Your task to perform on an android device: Open ESPN.com Image 0: 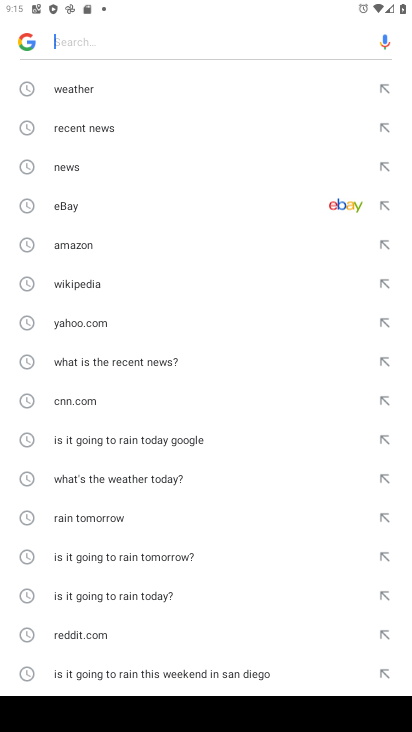
Step 0: type "espn.com"
Your task to perform on an android device: Open ESPN.com Image 1: 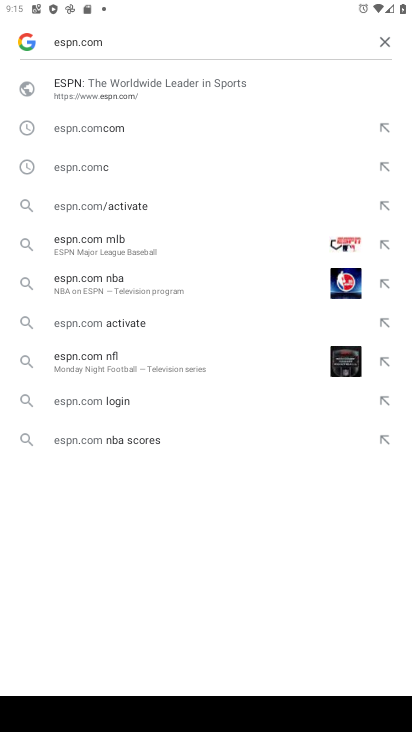
Step 1: click (206, 91)
Your task to perform on an android device: Open ESPN.com Image 2: 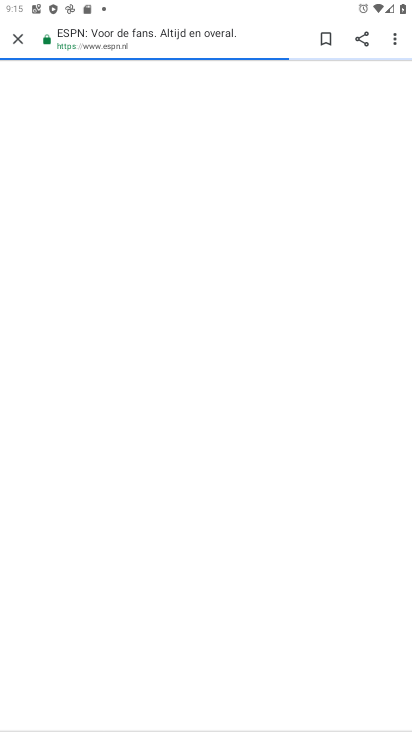
Step 2: task complete